Your task to perform on an android device: add a label to a message in the gmail app Image 0: 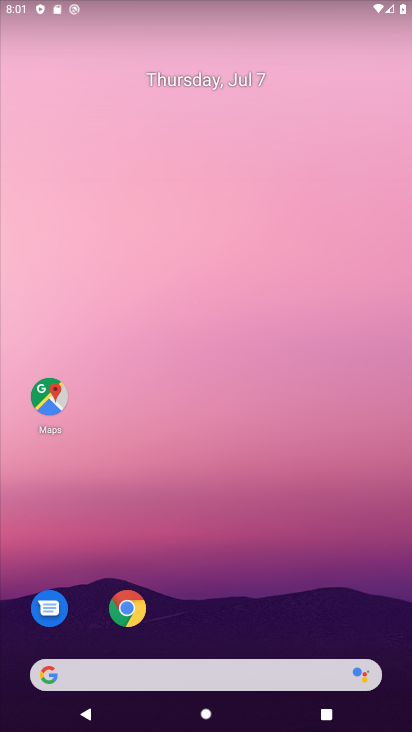
Step 0: drag from (380, 600) to (378, 181)
Your task to perform on an android device: add a label to a message in the gmail app Image 1: 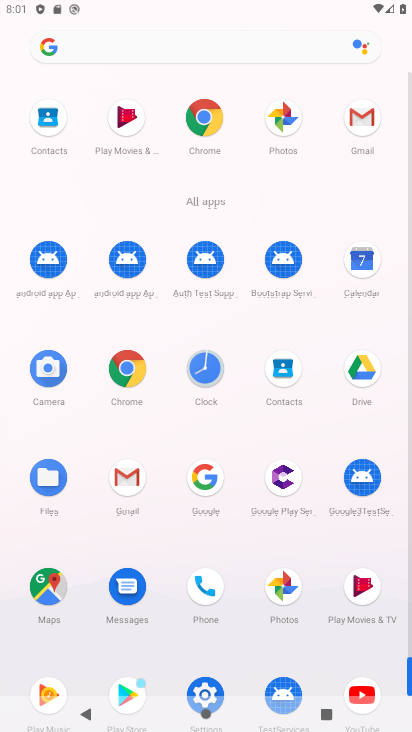
Step 1: click (131, 478)
Your task to perform on an android device: add a label to a message in the gmail app Image 2: 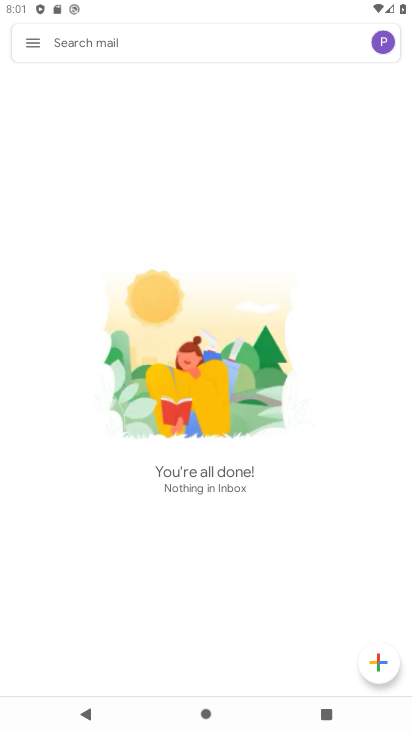
Step 2: click (35, 48)
Your task to perform on an android device: add a label to a message in the gmail app Image 3: 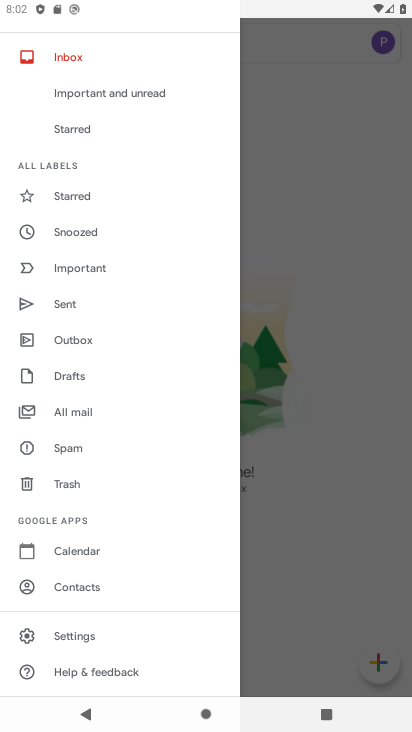
Step 3: drag from (156, 398) to (160, 233)
Your task to perform on an android device: add a label to a message in the gmail app Image 4: 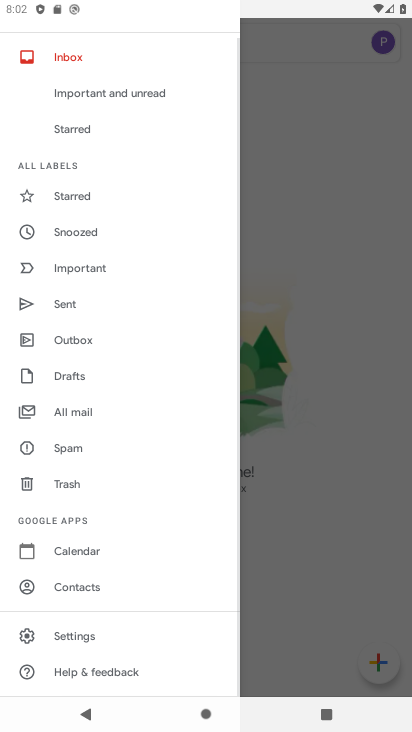
Step 4: click (100, 413)
Your task to perform on an android device: add a label to a message in the gmail app Image 5: 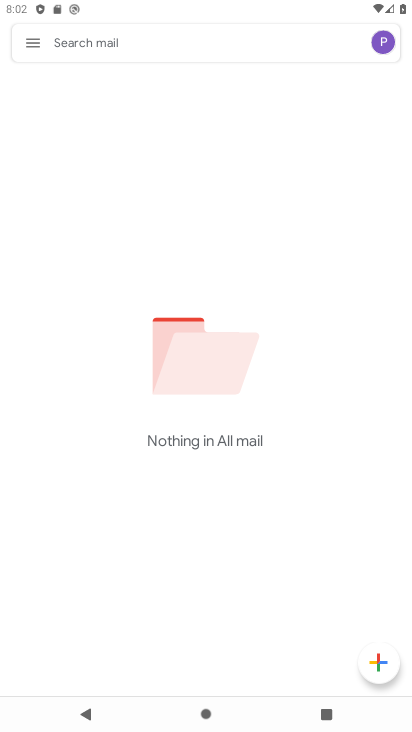
Step 5: task complete